Your task to perform on an android device: open chrome and create a bookmark for the current page Image 0: 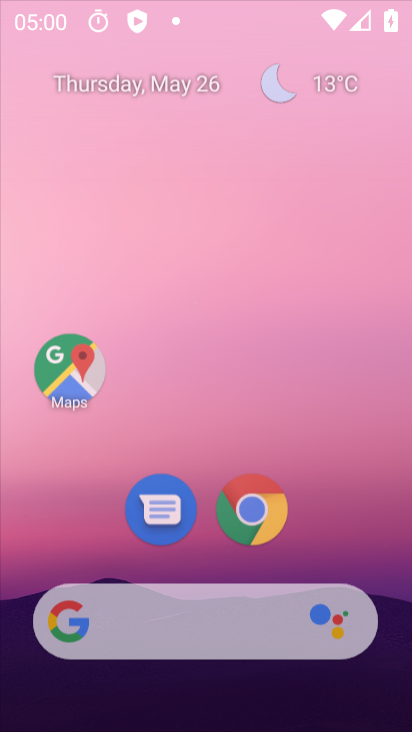
Step 0: drag from (286, 348) to (291, 0)
Your task to perform on an android device: open chrome and create a bookmark for the current page Image 1: 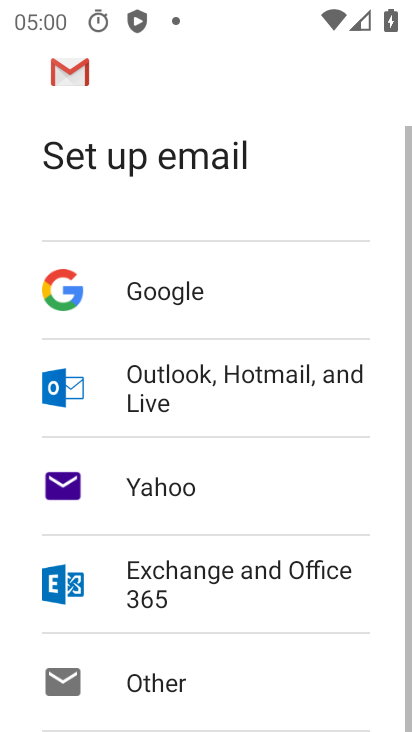
Step 1: press home button
Your task to perform on an android device: open chrome and create a bookmark for the current page Image 2: 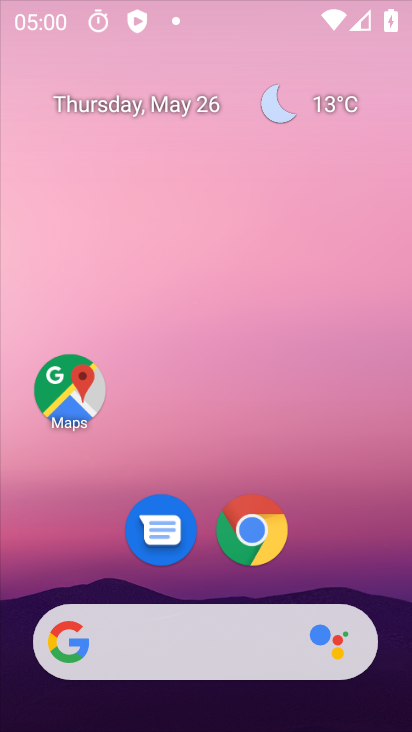
Step 2: drag from (247, 627) to (309, 8)
Your task to perform on an android device: open chrome and create a bookmark for the current page Image 3: 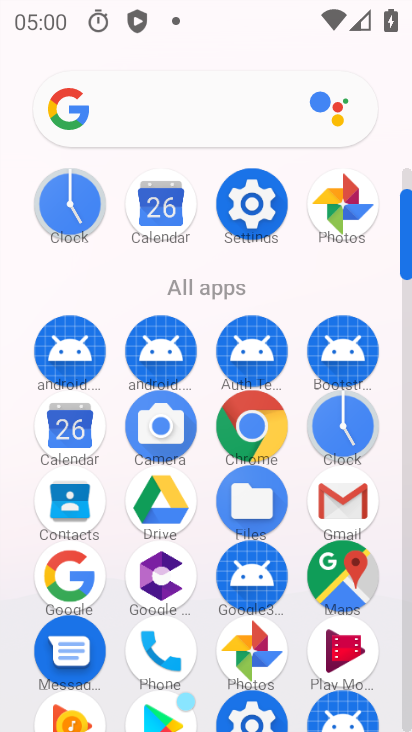
Step 3: click (248, 432)
Your task to perform on an android device: open chrome and create a bookmark for the current page Image 4: 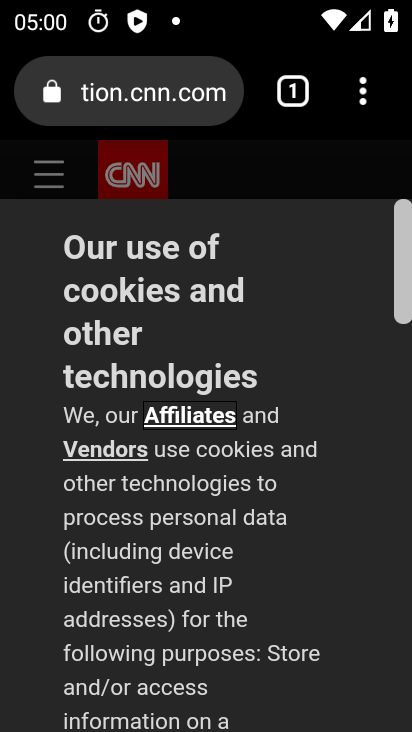
Step 4: task complete